Your task to perform on an android device: turn on data saver in the chrome app Image 0: 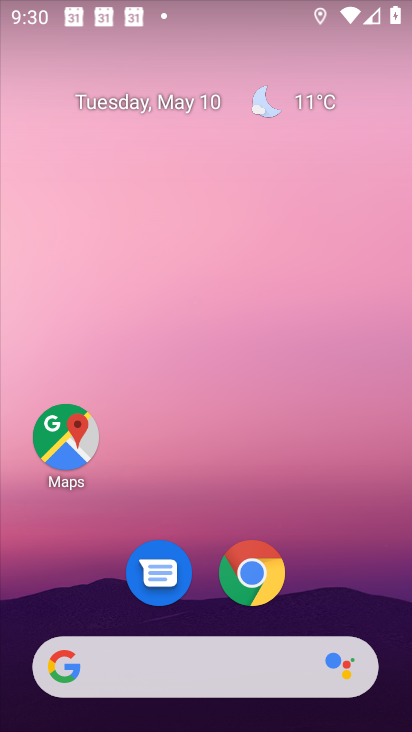
Step 0: click (264, 562)
Your task to perform on an android device: turn on data saver in the chrome app Image 1: 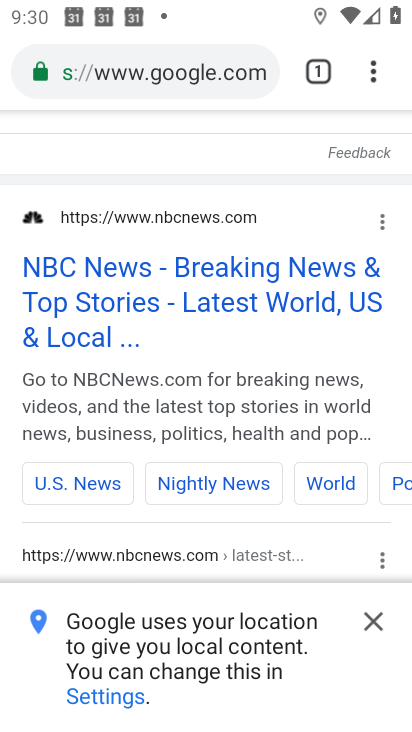
Step 1: click (152, 67)
Your task to perform on an android device: turn on data saver in the chrome app Image 2: 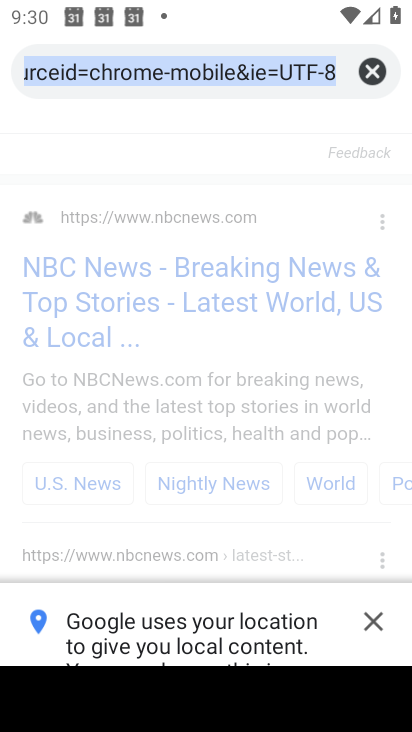
Step 2: click (371, 77)
Your task to perform on an android device: turn on data saver in the chrome app Image 3: 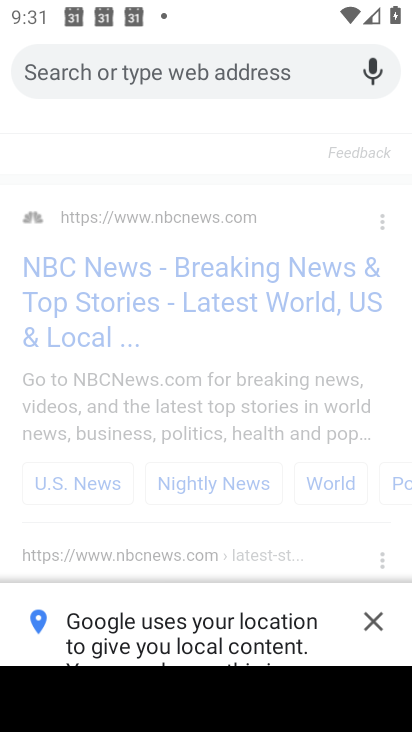
Step 3: press back button
Your task to perform on an android device: turn on data saver in the chrome app Image 4: 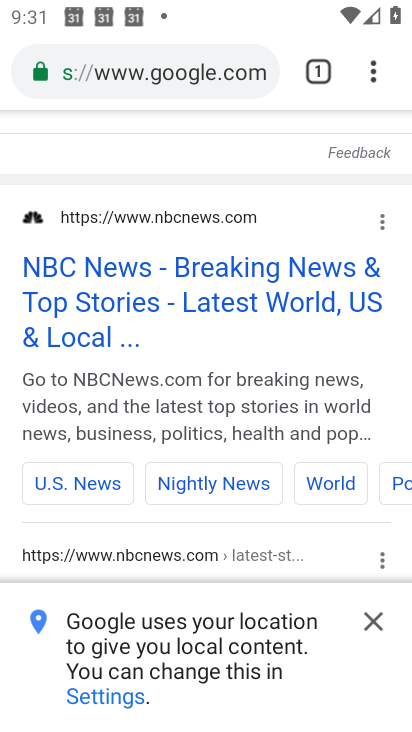
Step 4: drag from (365, 74) to (155, 564)
Your task to perform on an android device: turn on data saver in the chrome app Image 5: 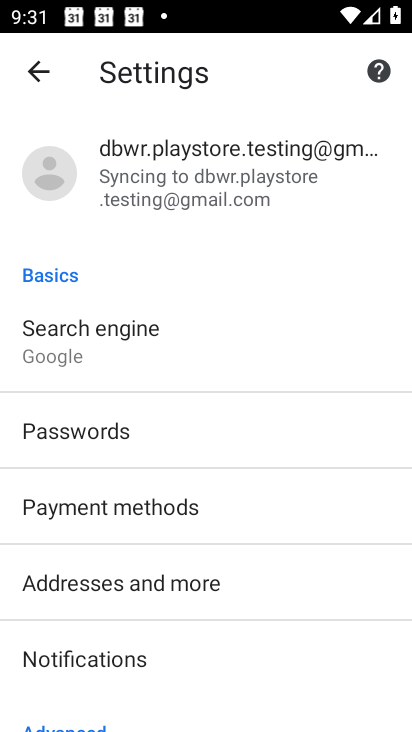
Step 5: drag from (186, 663) to (242, 252)
Your task to perform on an android device: turn on data saver in the chrome app Image 6: 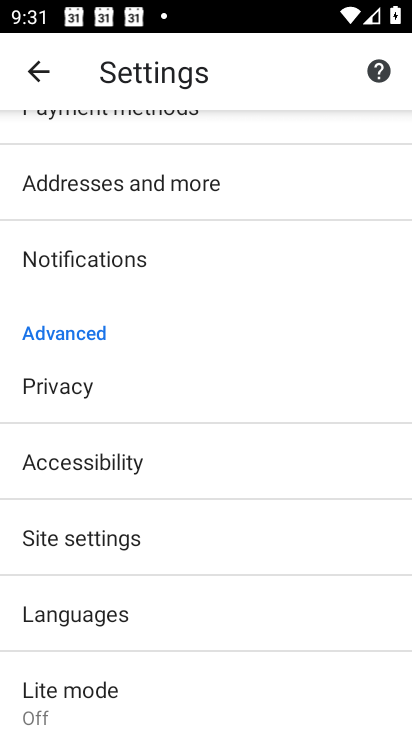
Step 6: click (114, 700)
Your task to perform on an android device: turn on data saver in the chrome app Image 7: 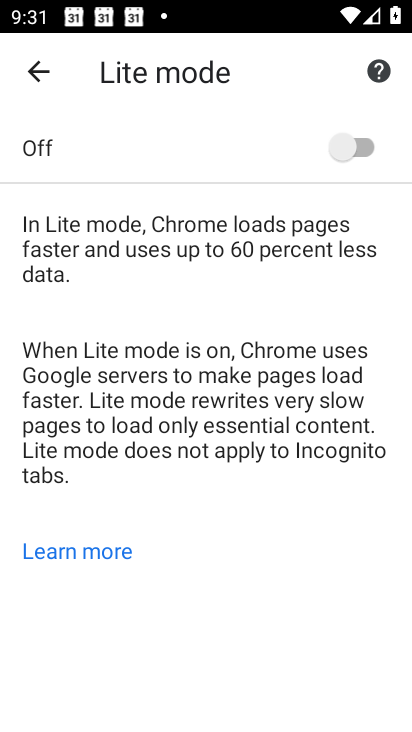
Step 7: click (354, 144)
Your task to perform on an android device: turn on data saver in the chrome app Image 8: 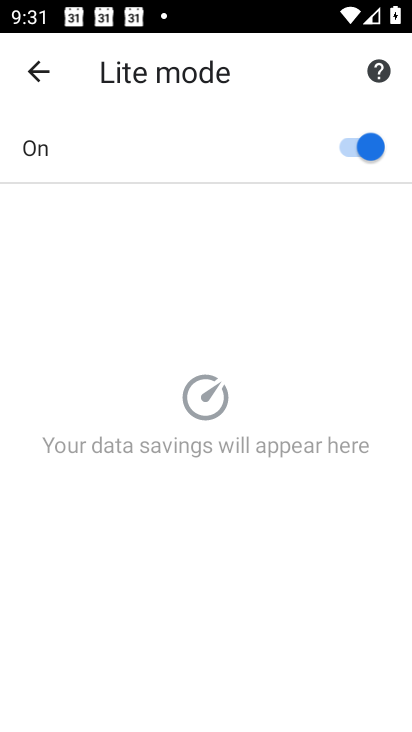
Step 8: task complete